Your task to perform on an android device: star an email in the gmail app Image 0: 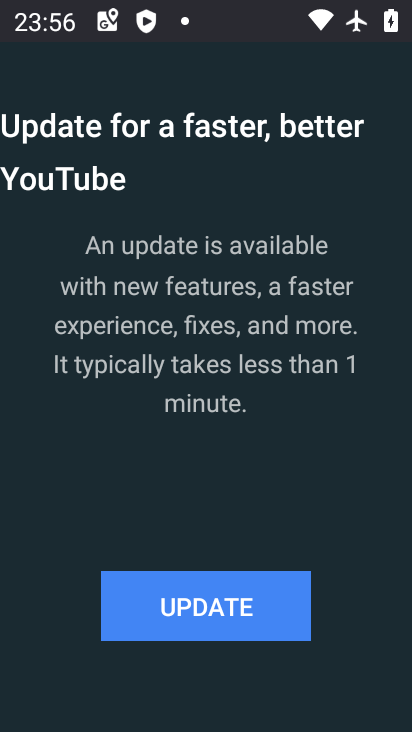
Step 0: press home button
Your task to perform on an android device: star an email in the gmail app Image 1: 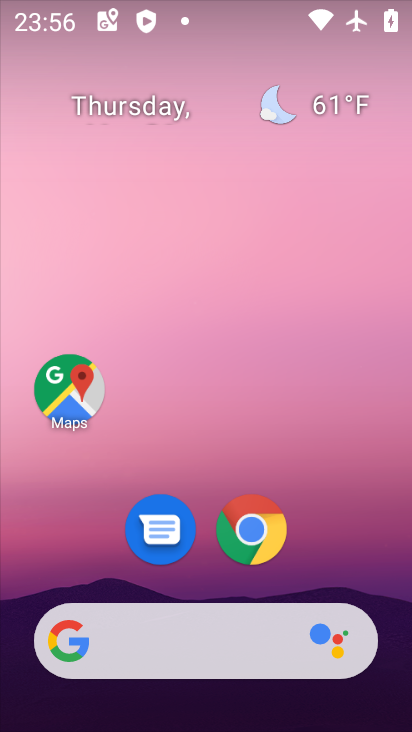
Step 1: drag from (348, 555) to (326, 50)
Your task to perform on an android device: star an email in the gmail app Image 2: 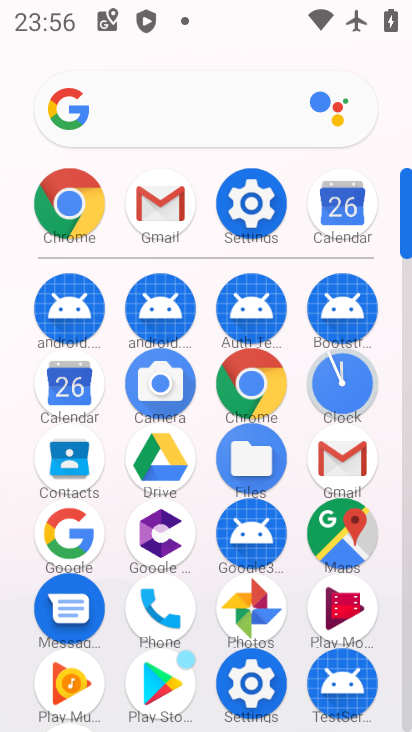
Step 2: click (175, 226)
Your task to perform on an android device: star an email in the gmail app Image 3: 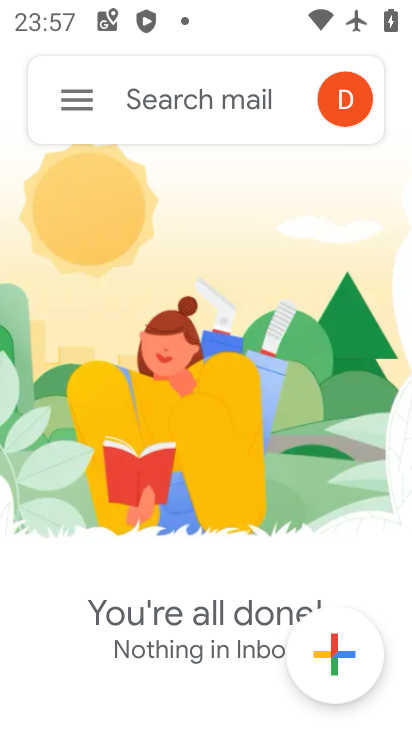
Step 3: press home button
Your task to perform on an android device: star an email in the gmail app Image 4: 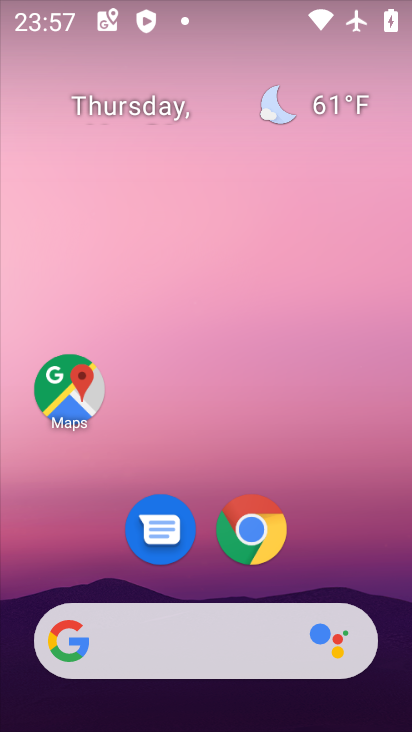
Step 4: drag from (338, 541) to (309, 186)
Your task to perform on an android device: star an email in the gmail app Image 5: 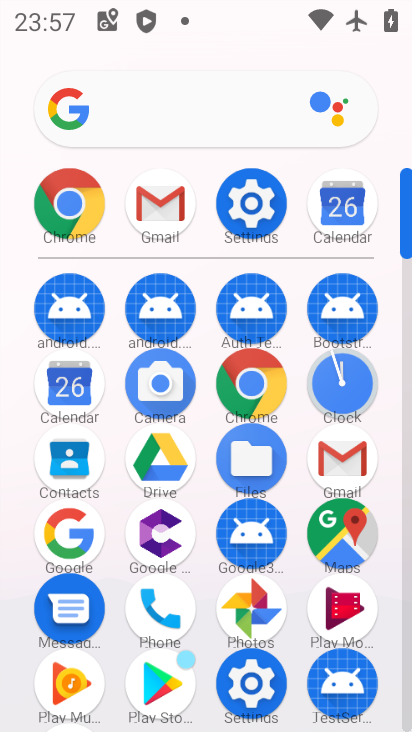
Step 5: click (345, 463)
Your task to perform on an android device: star an email in the gmail app Image 6: 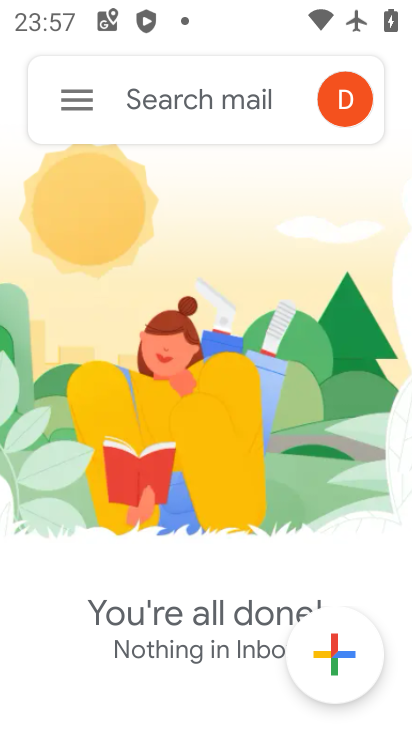
Step 6: click (67, 81)
Your task to perform on an android device: star an email in the gmail app Image 7: 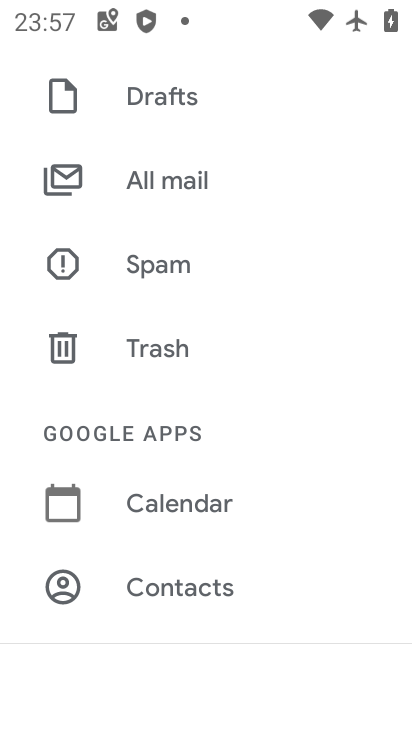
Step 7: drag from (187, 203) to (188, 511)
Your task to perform on an android device: star an email in the gmail app Image 8: 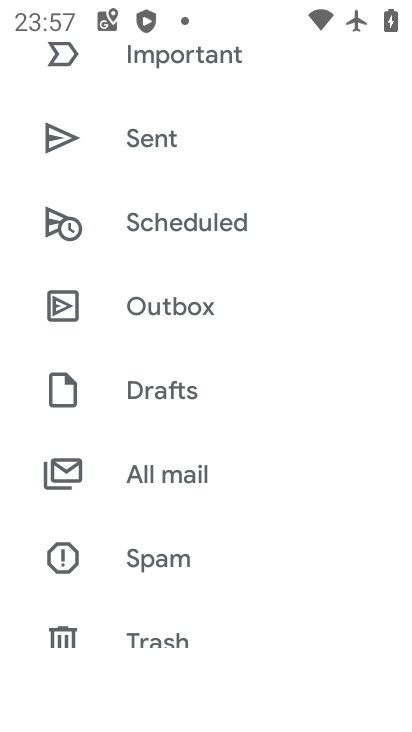
Step 8: drag from (150, 157) to (158, 510)
Your task to perform on an android device: star an email in the gmail app Image 9: 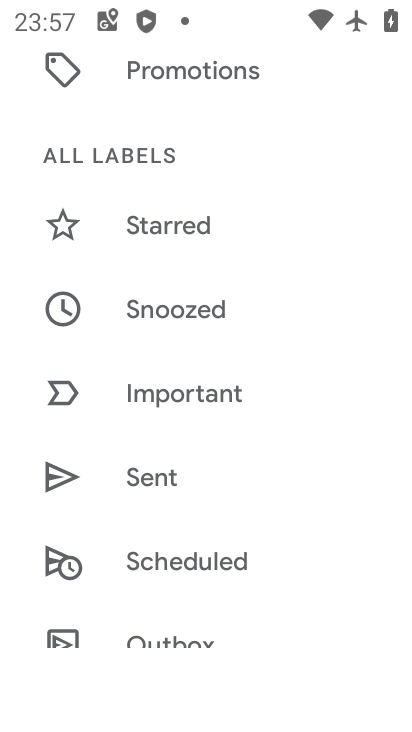
Step 9: click (167, 209)
Your task to perform on an android device: star an email in the gmail app Image 10: 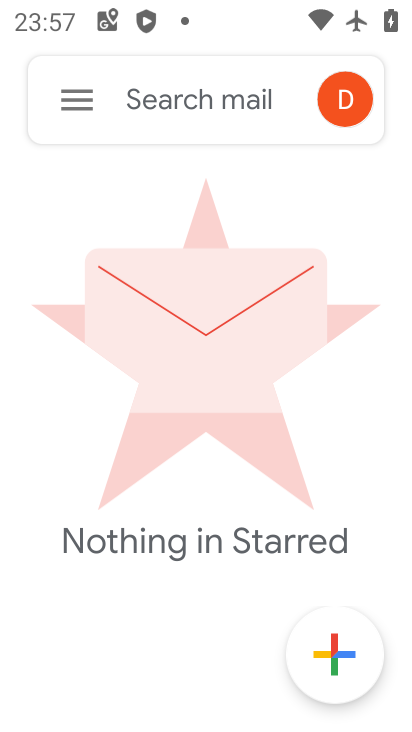
Step 10: task complete